Your task to perform on an android device: Open calendar and show me the first week of next month Image 0: 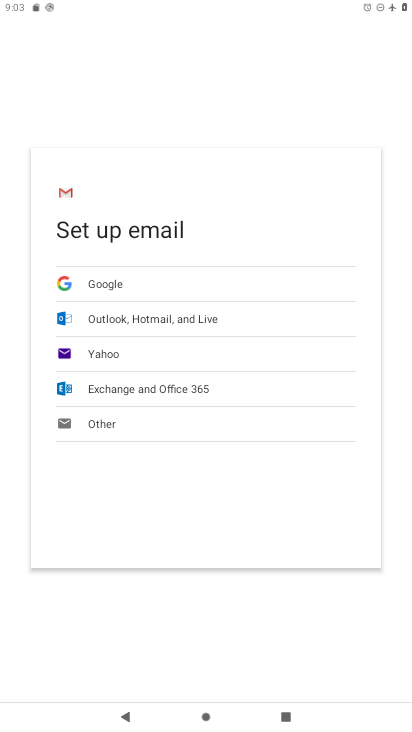
Step 0: press home button
Your task to perform on an android device: Open calendar and show me the first week of next month Image 1: 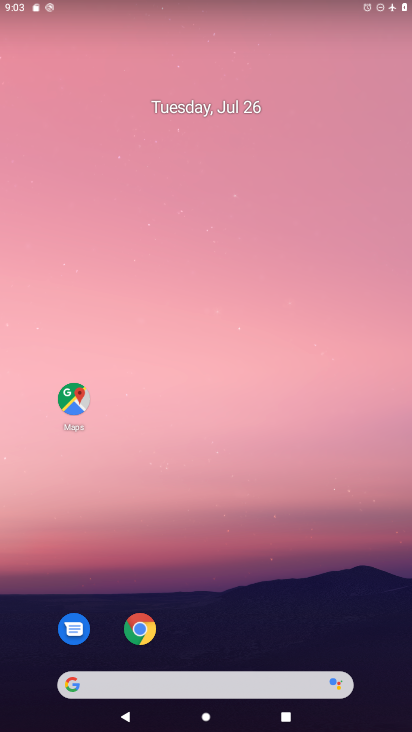
Step 1: drag from (200, 663) to (343, 75)
Your task to perform on an android device: Open calendar and show me the first week of next month Image 2: 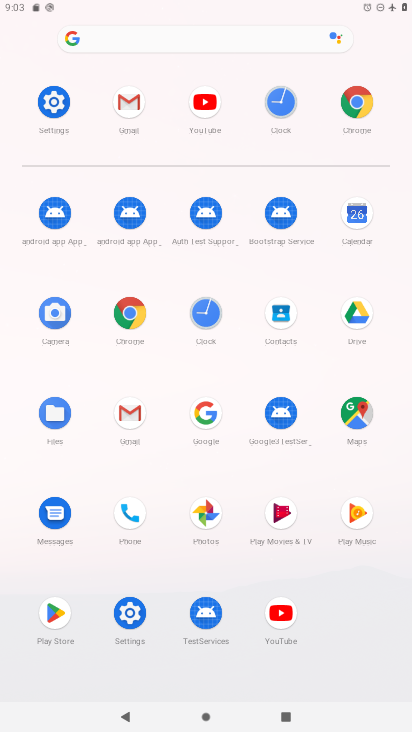
Step 2: click (367, 217)
Your task to perform on an android device: Open calendar and show me the first week of next month Image 3: 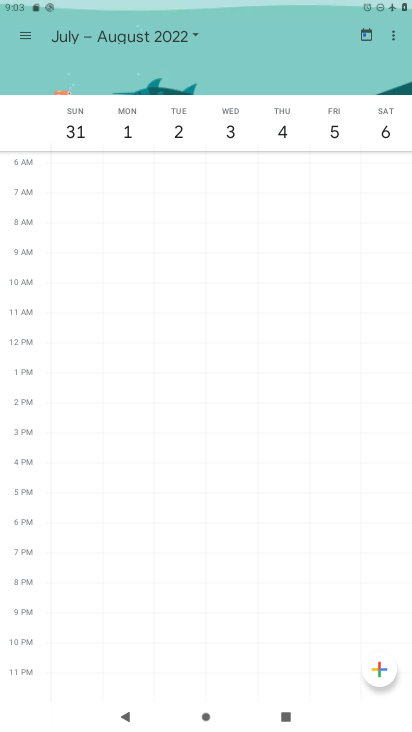
Step 3: task complete